Your task to perform on an android device: Empty the shopping cart on amazon.com. Image 0: 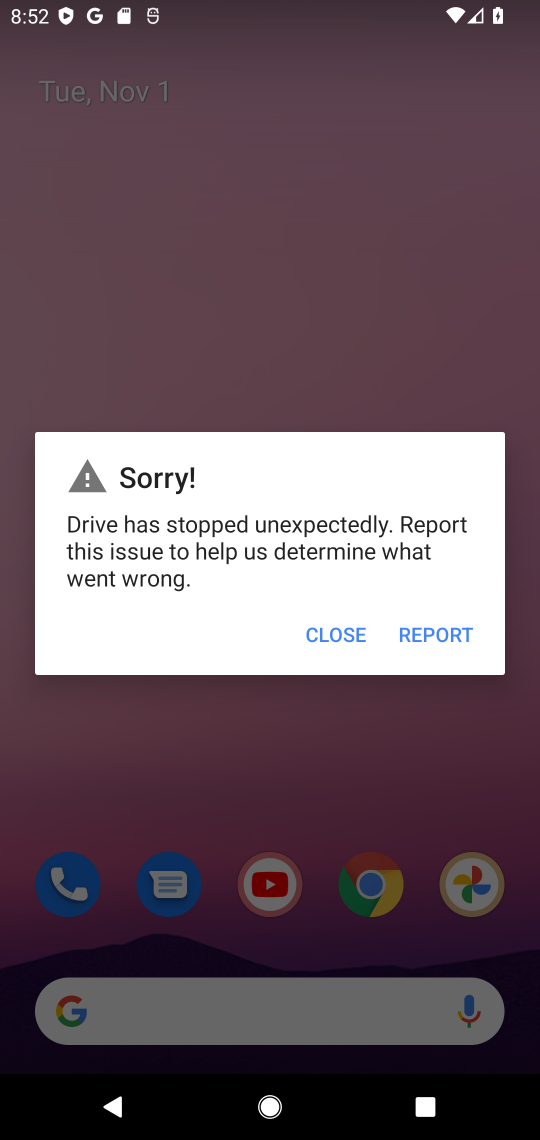
Step 0: press home button
Your task to perform on an android device: Empty the shopping cart on amazon.com. Image 1: 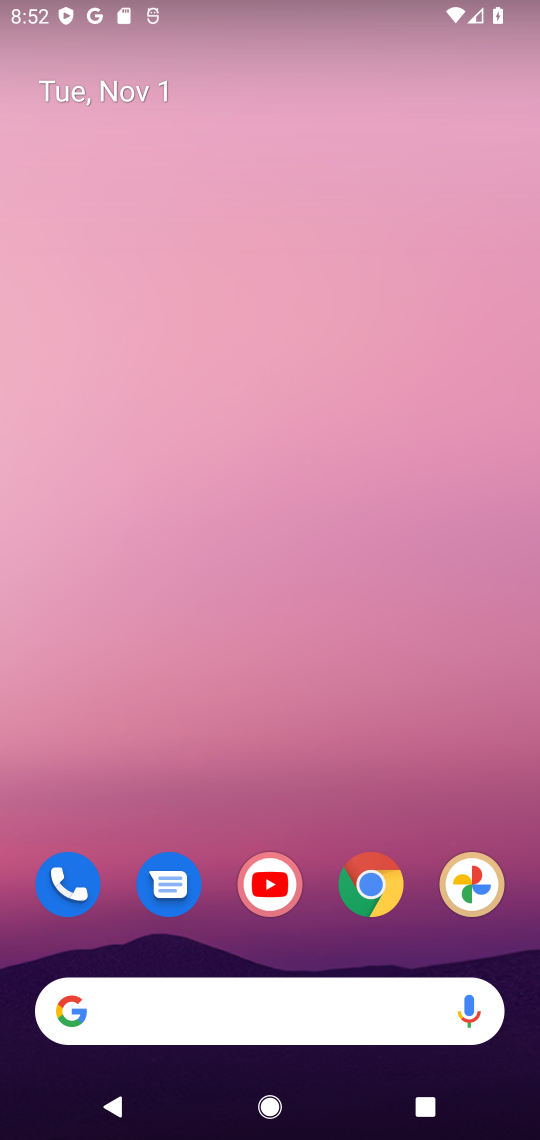
Step 1: click (375, 892)
Your task to perform on an android device: Empty the shopping cart on amazon.com. Image 2: 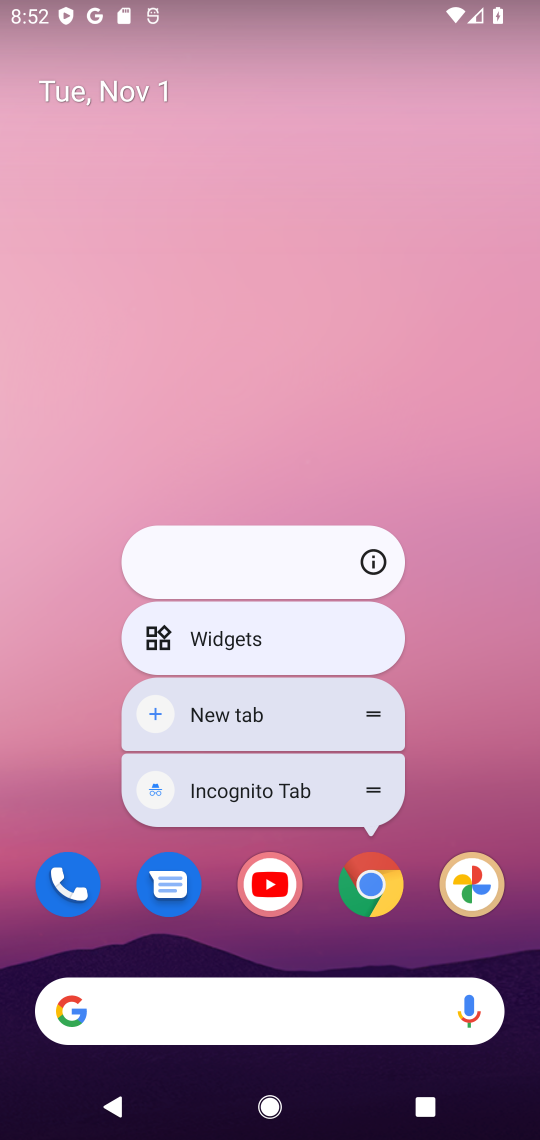
Step 2: click (360, 866)
Your task to perform on an android device: Empty the shopping cart on amazon.com. Image 3: 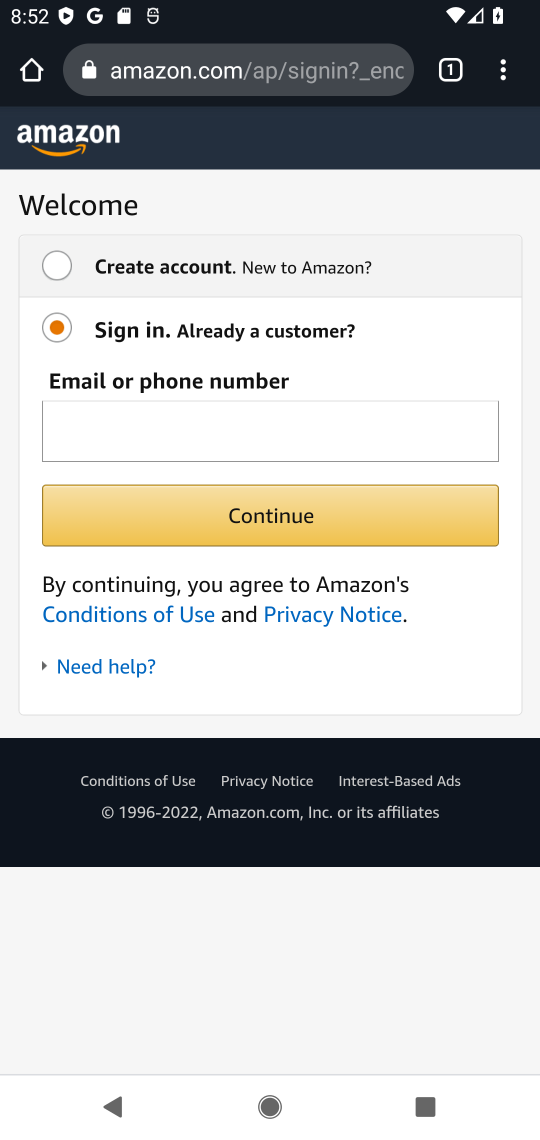
Step 3: drag from (320, 212) to (317, 795)
Your task to perform on an android device: Empty the shopping cart on amazon.com. Image 4: 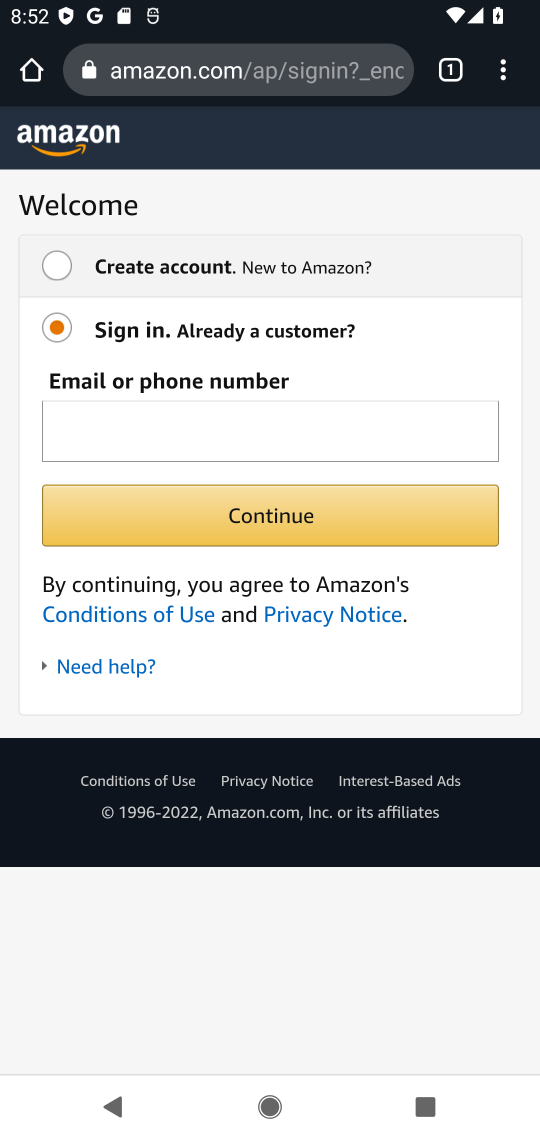
Step 4: press back button
Your task to perform on an android device: Empty the shopping cart on amazon.com. Image 5: 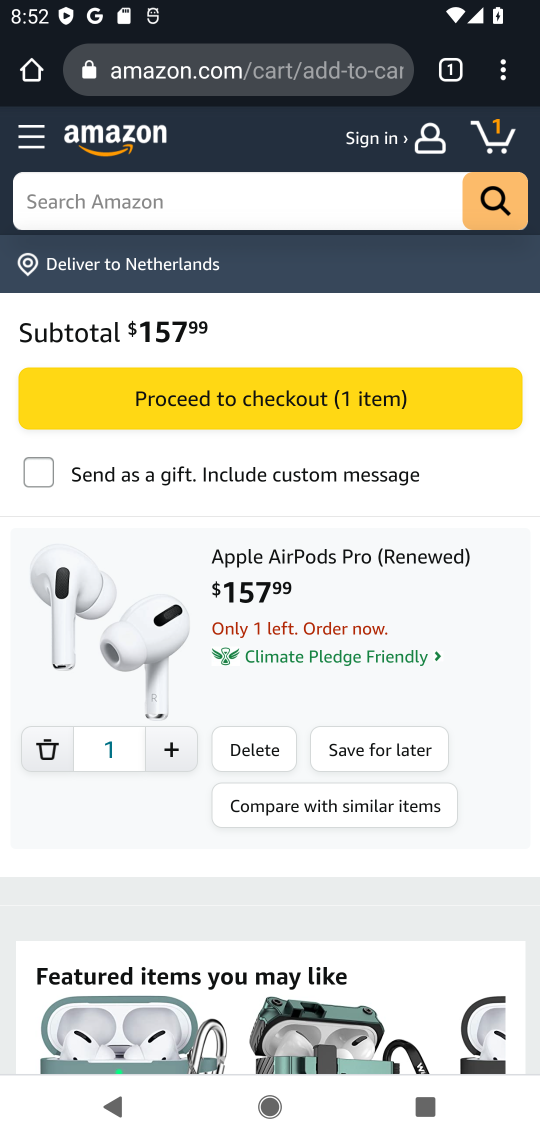
Step 5: click (502, 138)
Your task to perform on an android device: Empty the shopping cart on amazon.com. Image 6: 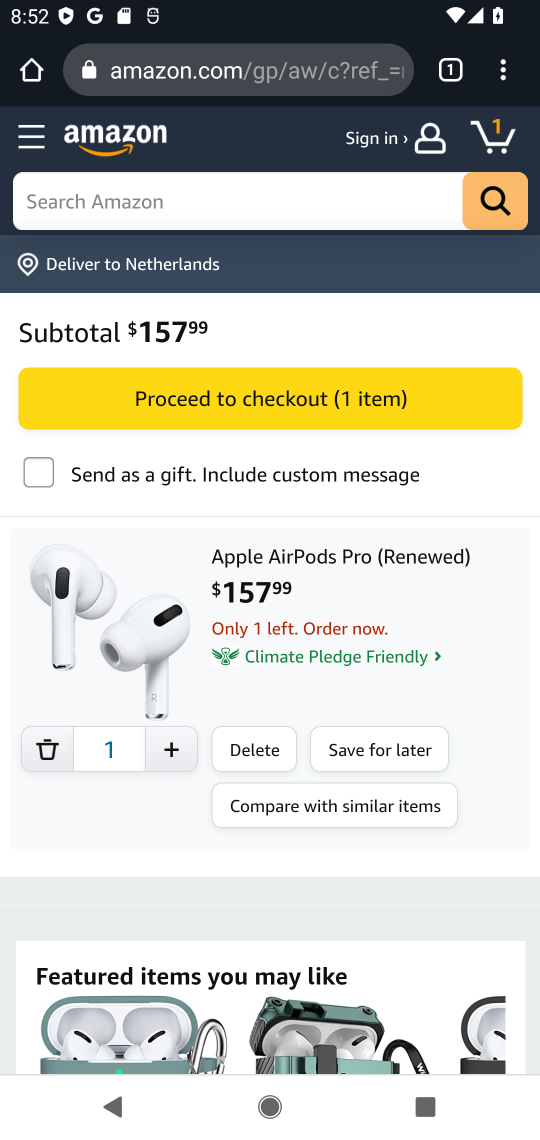
Step 6: click (267, 758)
Your task to perform on an android device: Empty the shopping cart on amazon.com. Image 7: 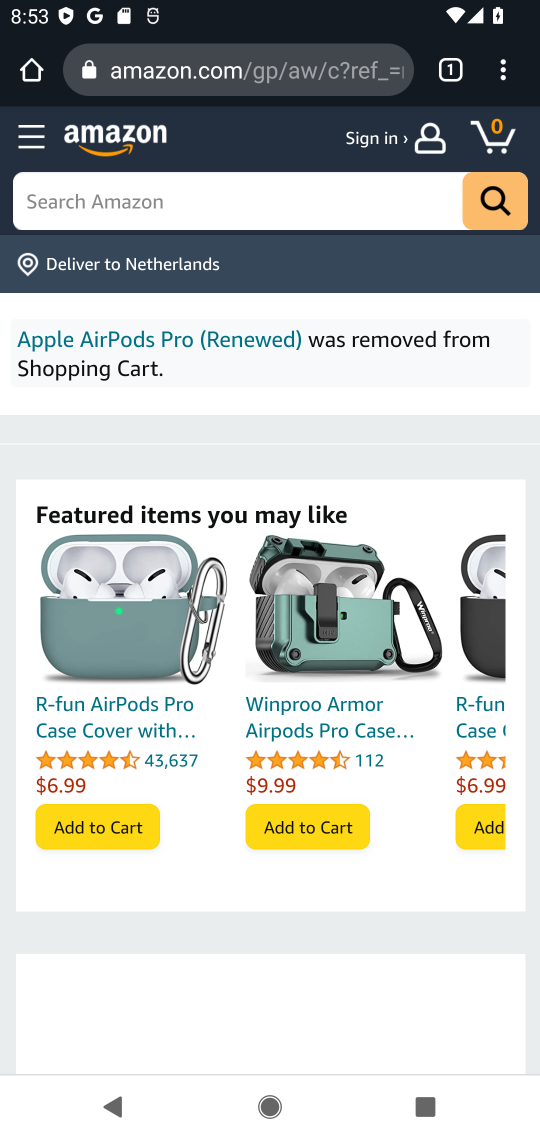
Step 7: task complete